Your task to perform on an android device: Go to CNN.com Image 0: 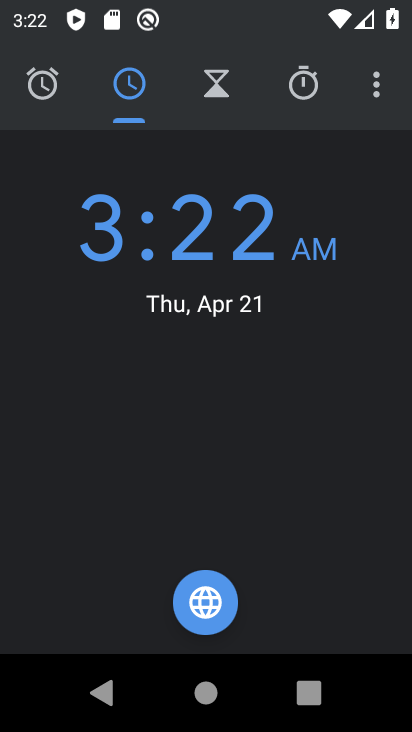
Step 0: press home button
Your task to perform on an android device: Go to CNN.com Image 1: 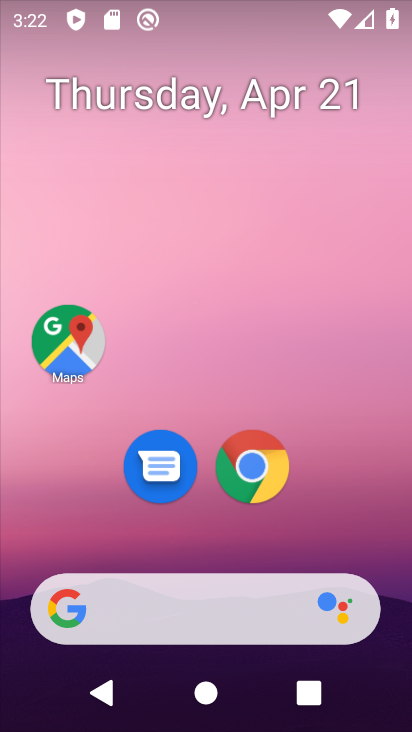
Step 1: click (205, 604)
Your task to perform on an android device: Go to CNN.com Image 2: 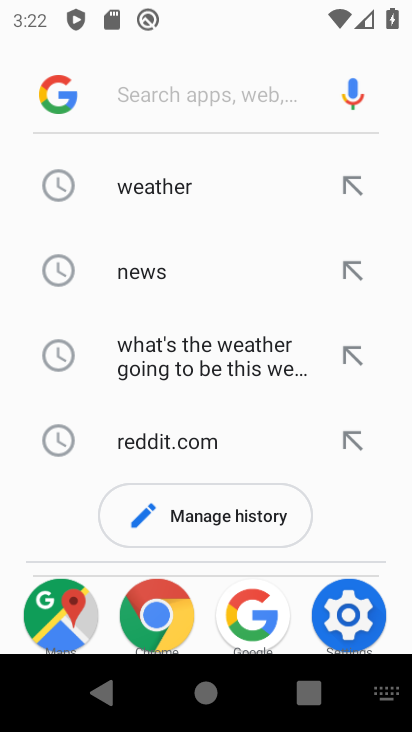
Step 2: type "CNN.com"
Your task to perform on an android device: Go to CNN.com Image 3: 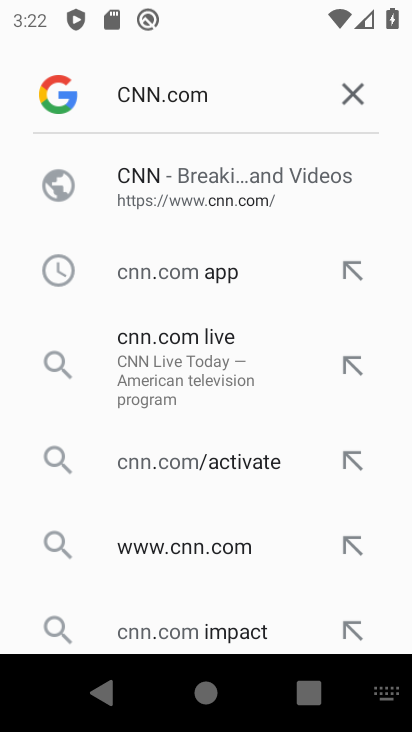
Step 3: click (240, 551)
Your task to perform on an android device: Go to CNN.com Image 4: 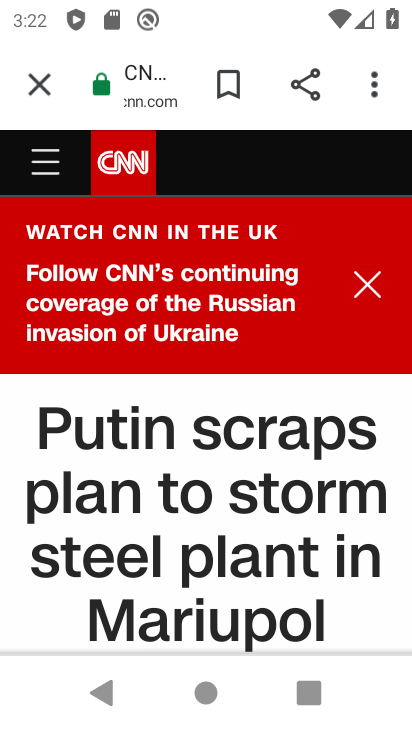
Step 4: task complete